Your task to perform on an android device: turn off location Image 0: 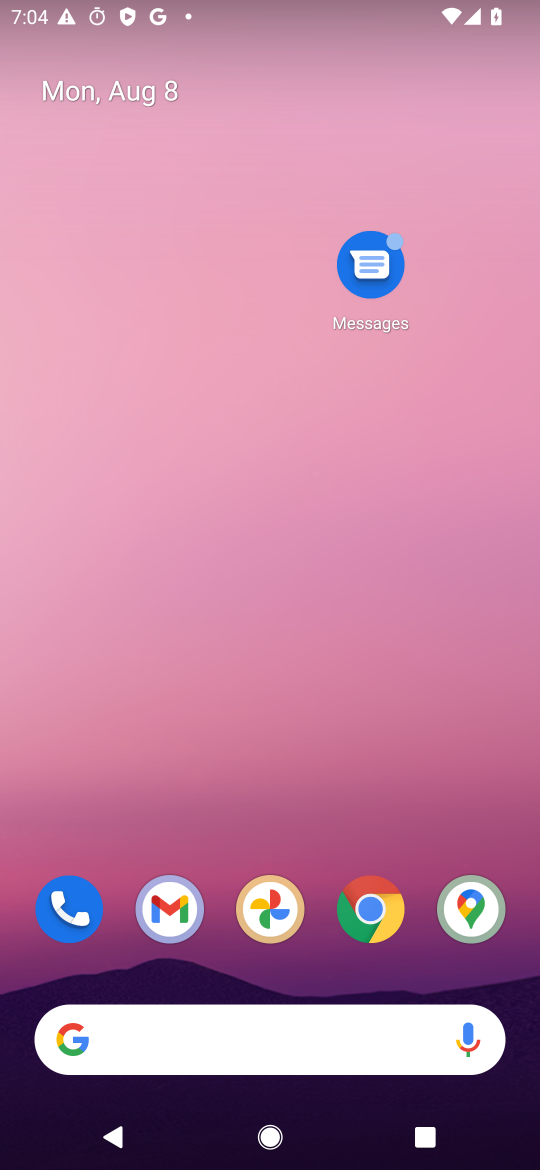
Step 0: press home button
Your task to perform on an android device: turn off location Image 1: 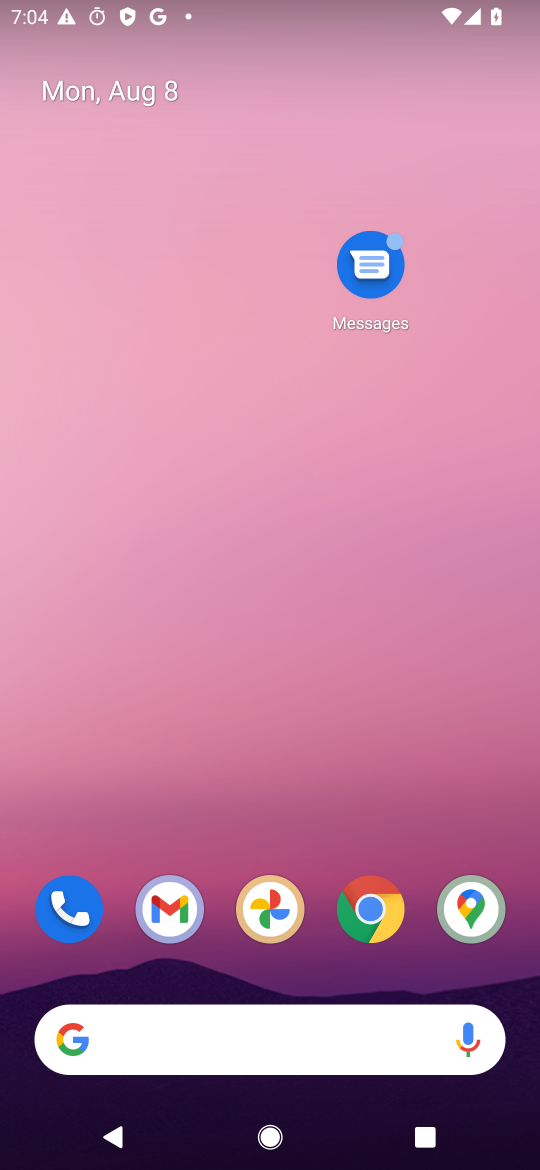
Step 1: drag from (220, 1040) to (420, 157)
Your task to perform on an android device: turn off location Image 2: 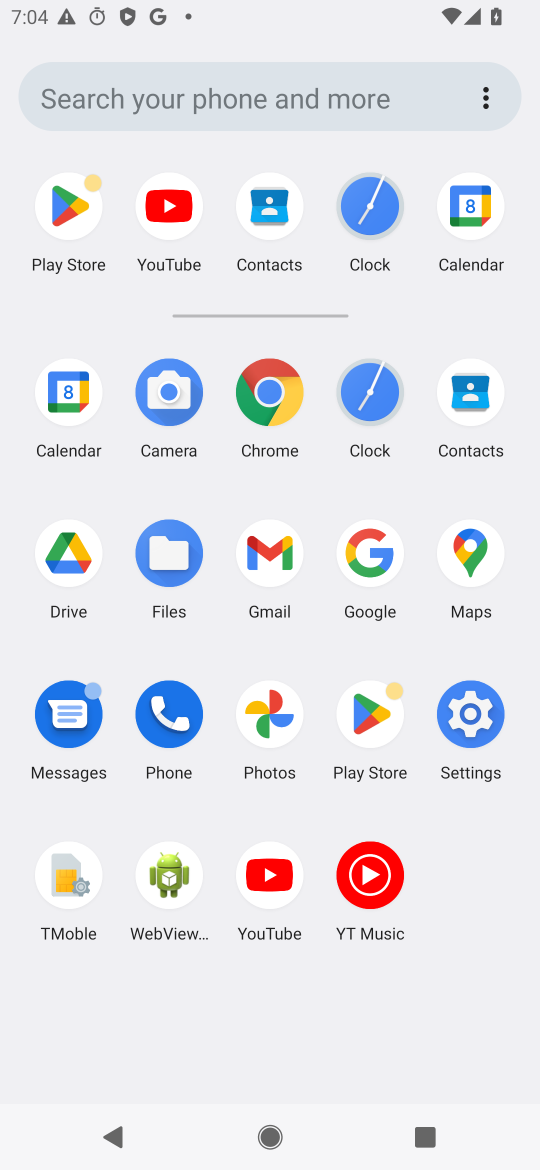
Step 2: click (482, 712)
Your task to perform on an android device: turn off location Image 3: 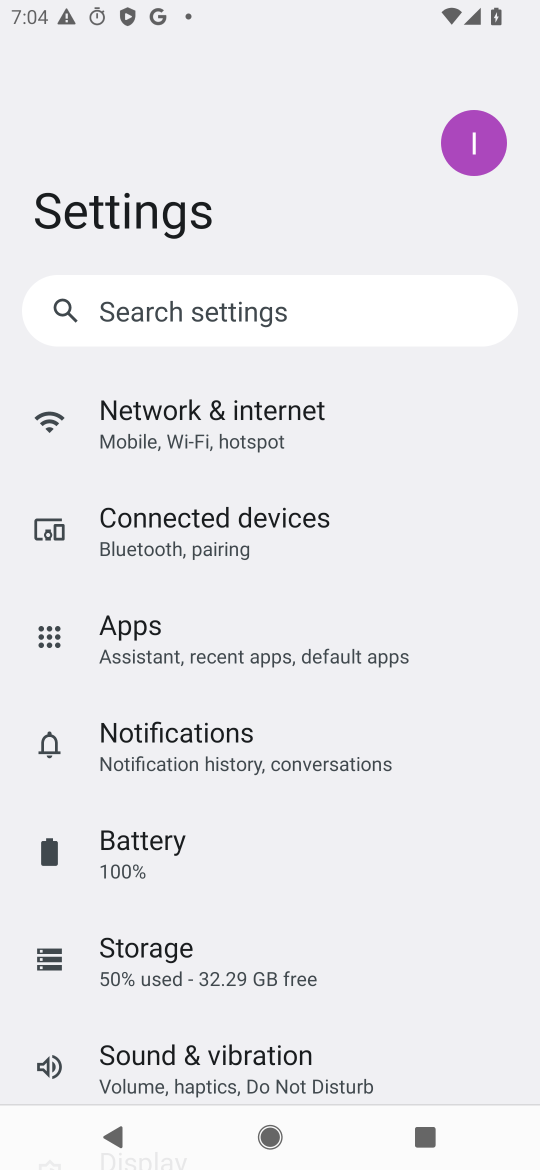
Step 3: drag from (324, 913) to (462, 376)
Your task to perform on an android device: turn off location Image 4: 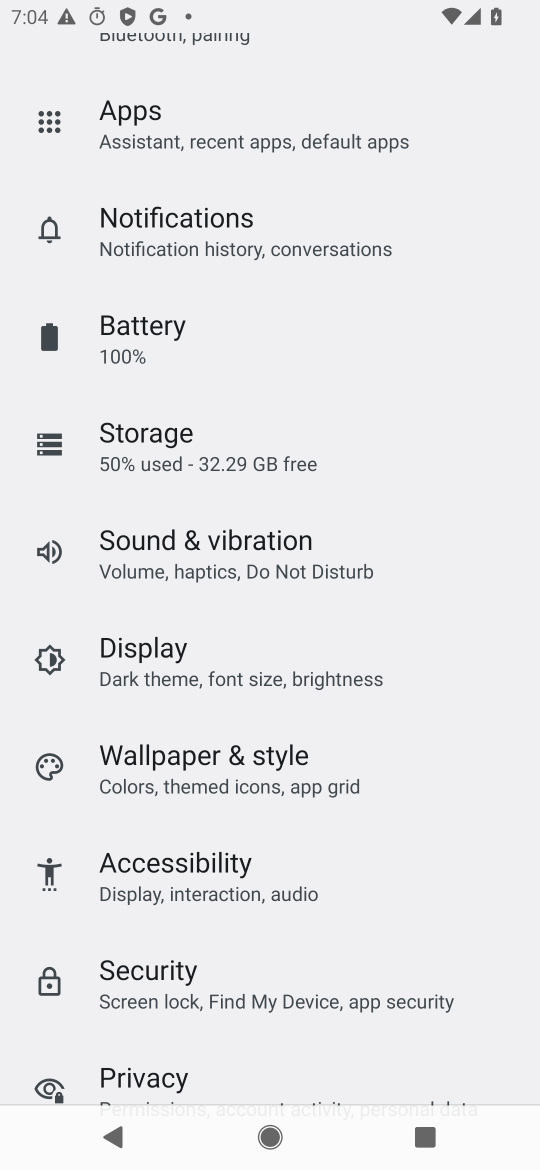
Step 4: drag from (314, 970) to (408, 366)
Your task to perform on an android device: turn off location Image 5: 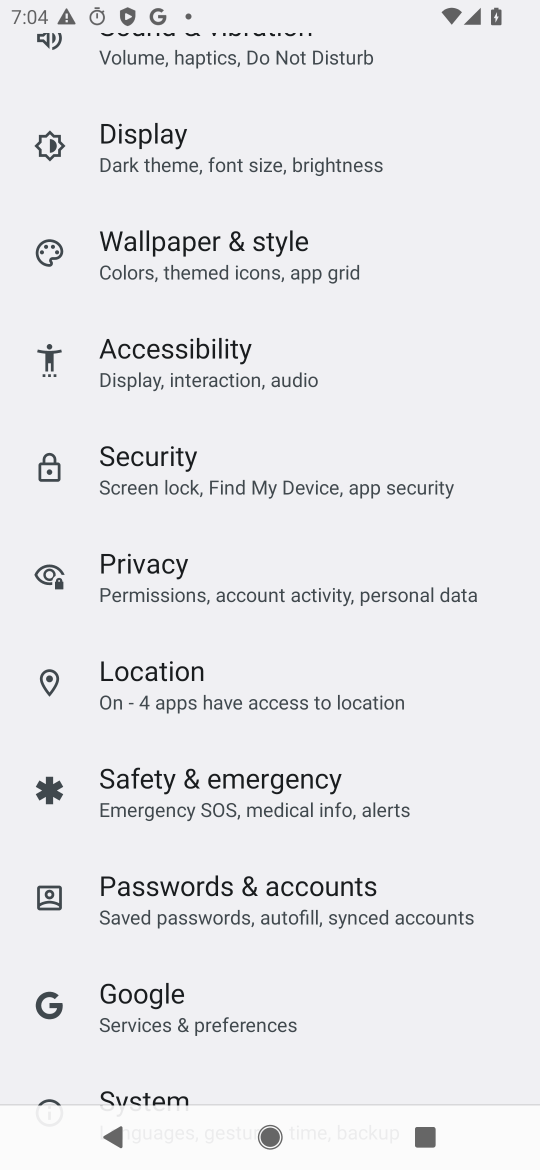
Step 5: click (211, 670)
Your task to perform on an android device: turn off location Image 6: 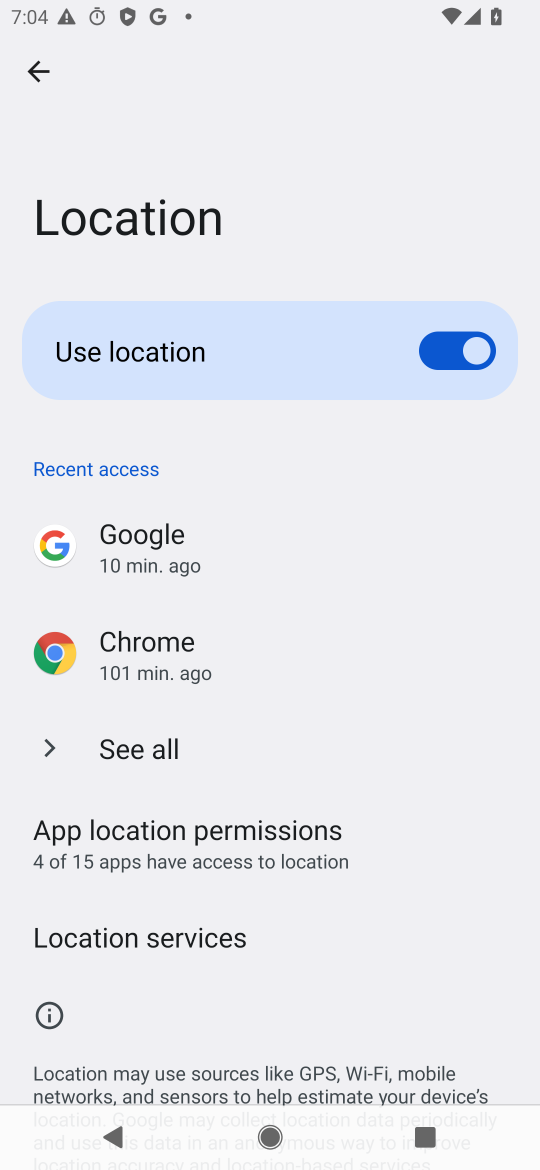
Step 6: click (432, 344)
Your task to perform on an android device: turn off location Image 7: 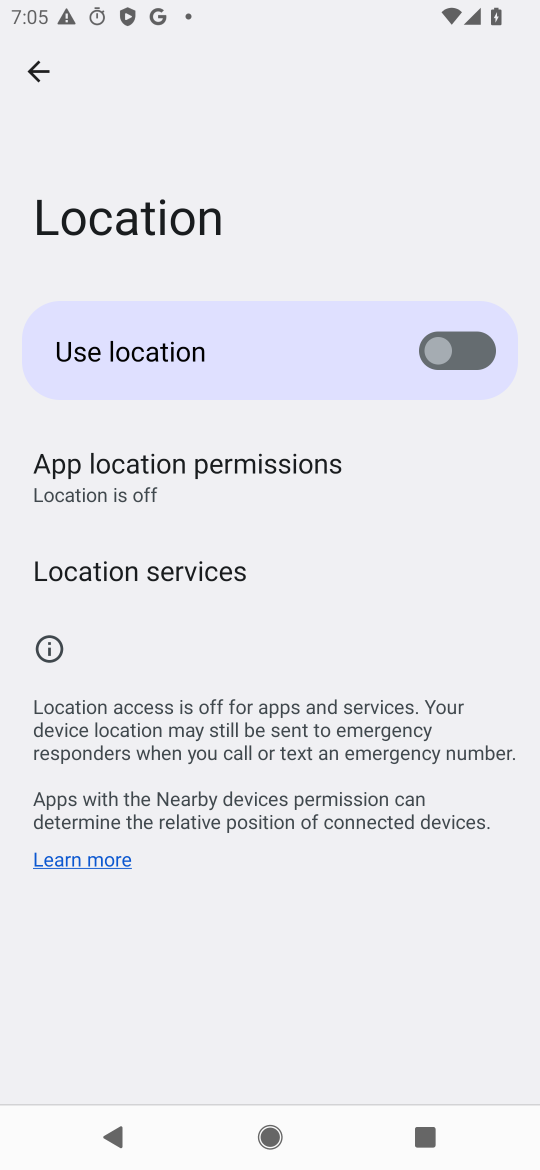
Step 7: task complete